Your task to perform on an android device: What is the news today? Image 0: 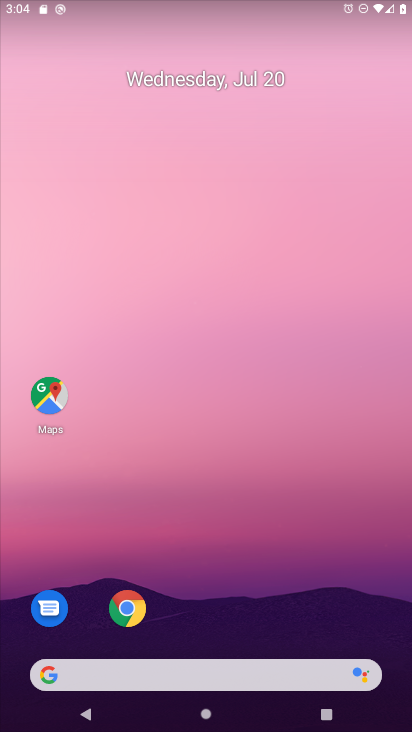
Step 0: click (244, 679)
Your task to perform on an android device: What is the news today? Image 1: 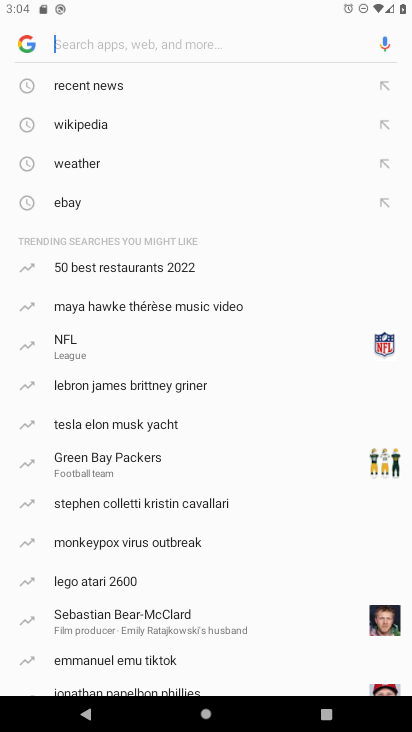
Step 1: type "news today"
Your task to perform on an android device: What is the news today? Image 2: 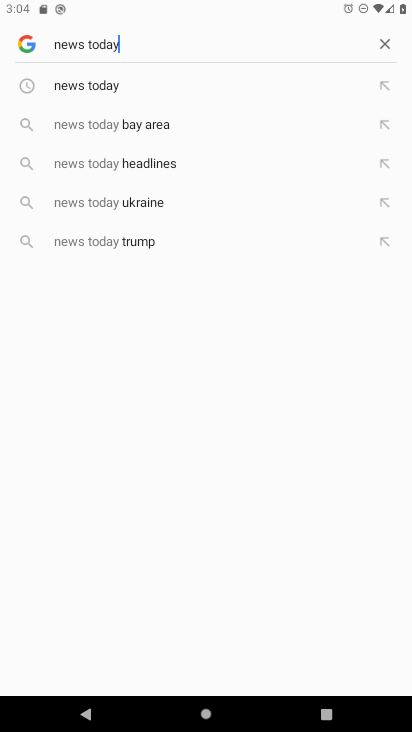
Step 2: click (220, 83)
Your task to perform on an android device: What is the news today? Image 3: 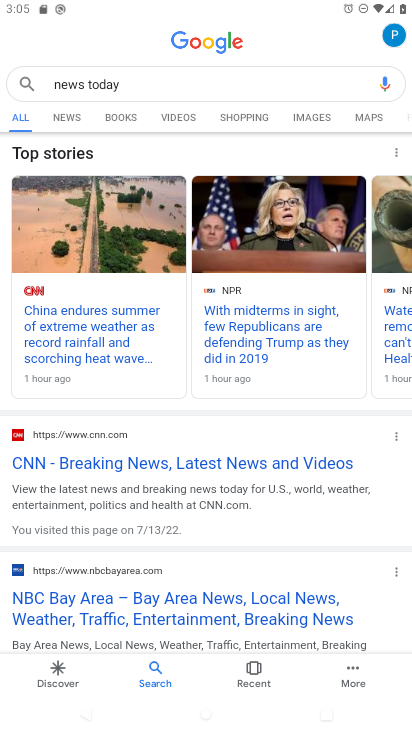
Step 3: task complete